Your task to perform on an android device: turn off translation in the chrome app Image 0: 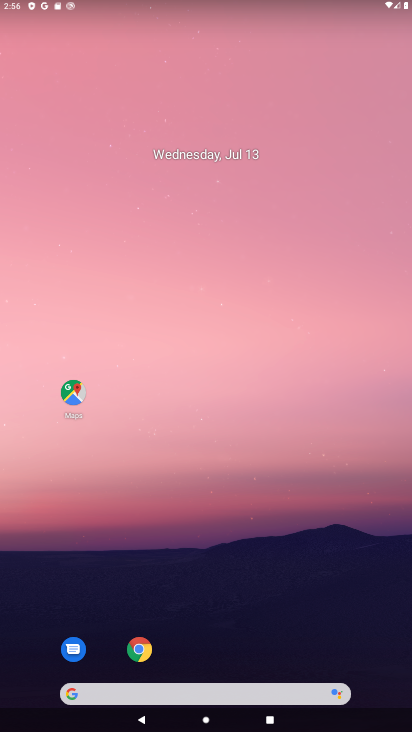
Step 0: click (135, 638)
Your task to perform on an android device: turn off translation in the chrome app Image 1: 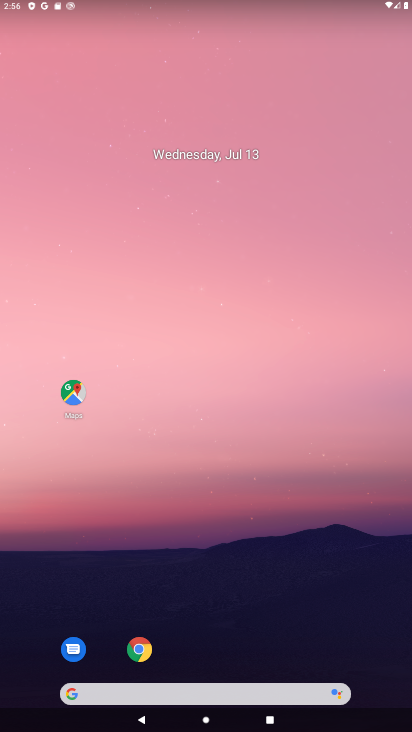
Step 1: click (135, 638)
Your task to perform on an android device: turn off translation in the chrome app Image 2: 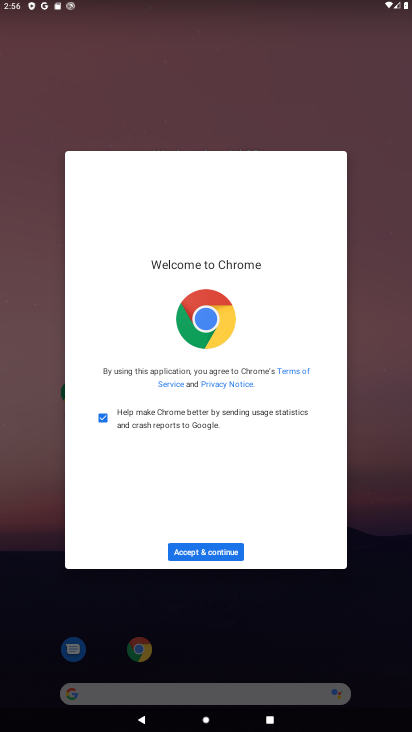
Step 2: click (217, 551)
Your task to perform on an android device: turn off translation in the chrome app Image 3: 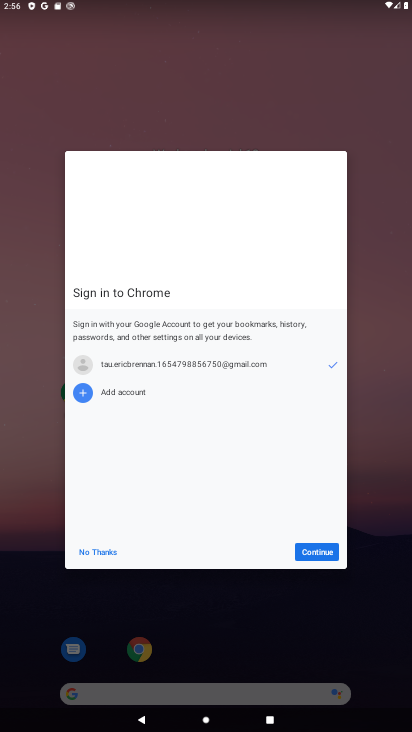
Step 3: click (324, 549)
Your task to perform on an android device: turn off translation in the chrome app Image 4: 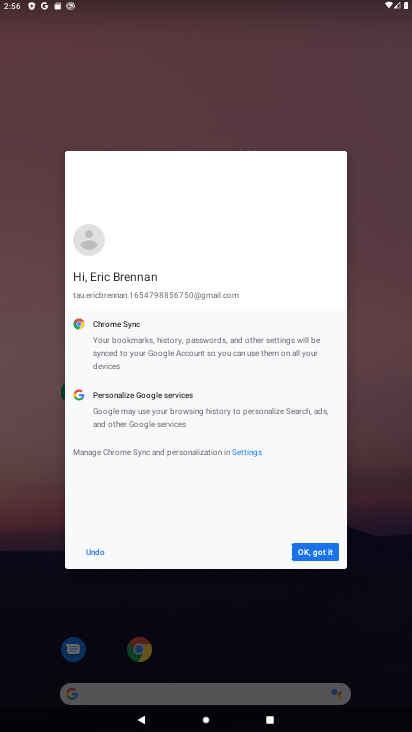
Step 4: click (324, 549)
Your task to perform on an android device: turn off translation in the chrome app Image 5: 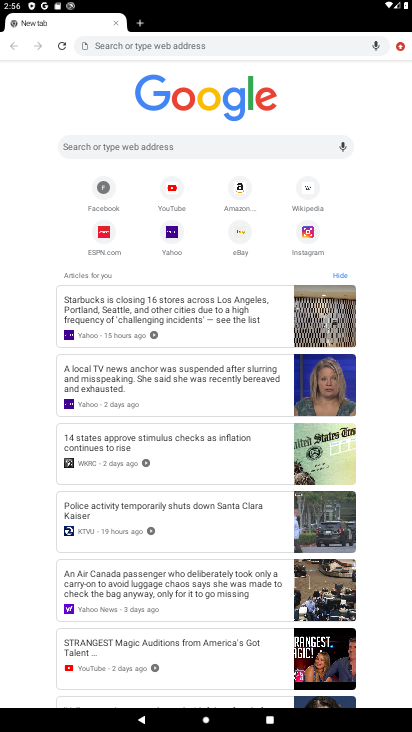
Step 5: click (399, 42)
Your task to perform on an android device: turn off translation in the chrome app Image 6: 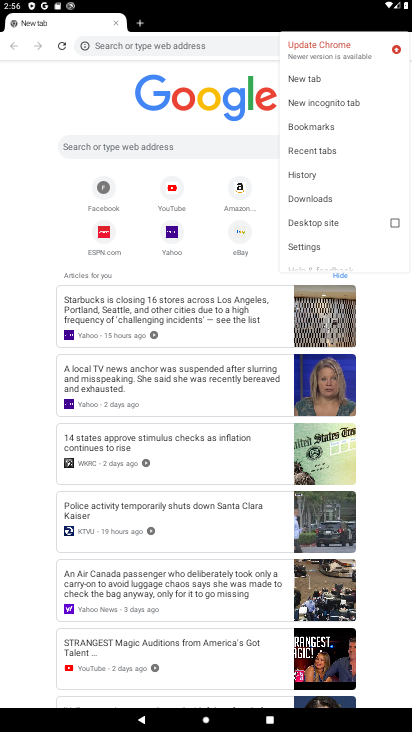
Step 6: click (303, 246)
Your task to perform on an android device: turn off translation in the chrome app Image 7: 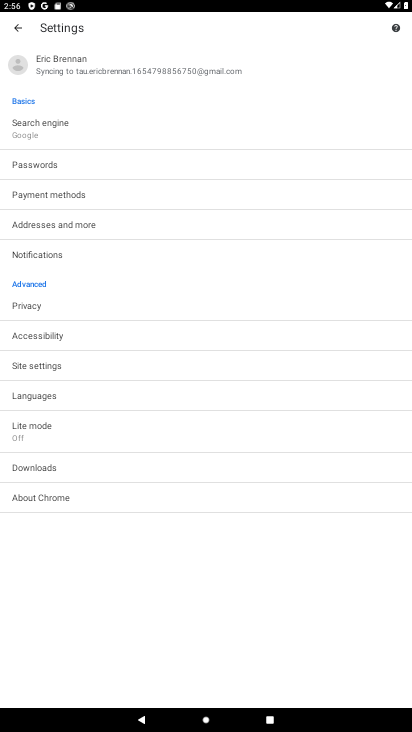
Step 7: click (53, 396)
Your task to perform on an android device: turn off translation in the chrome app Image 8: 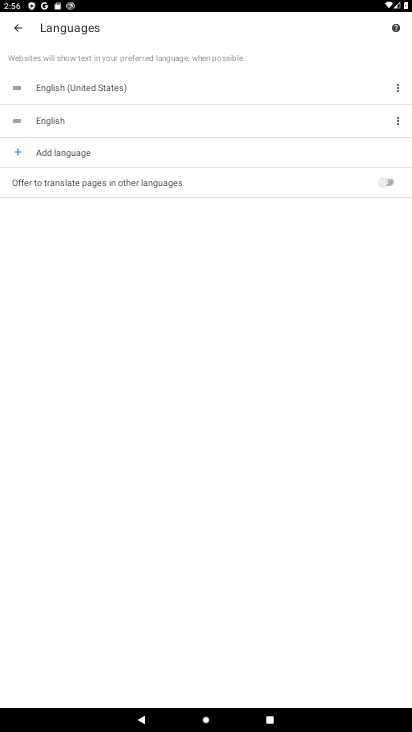
Step 8: task complete